Your task to perform on an android device: Open calendar and show me the second week of next month Image 0: 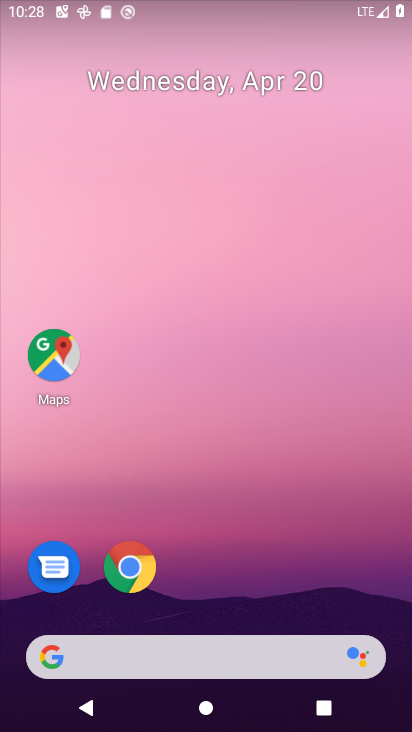
Step 0: drag from (346, 587) to (347, 185)
Your task to perform on an android device: Open calendar and show me the second week of next month Image 1: 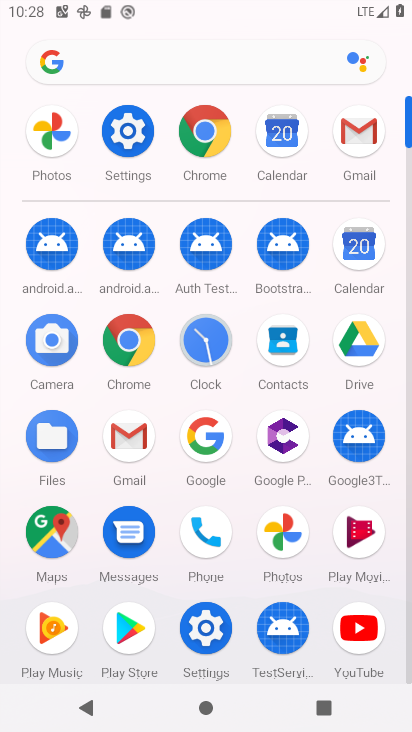
Step 1: click (365, 239)
Your task to perform on an android device: Open calendar and show me the second week of next month Image 2: 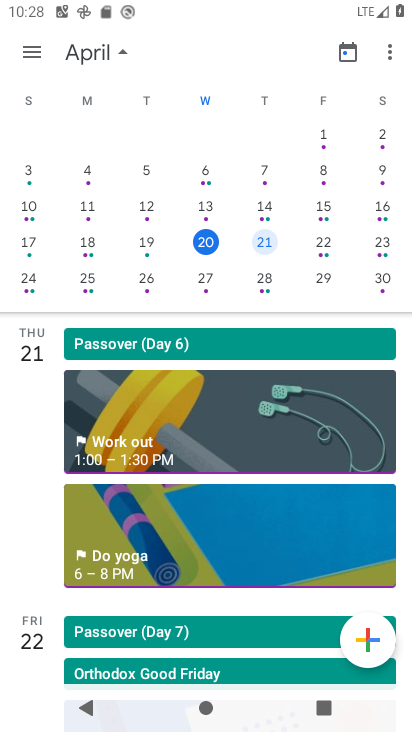
Step 2: drag from (383, 228) to (3, 235)
Your task to perform on an android device: Open calendar and show me the second week of next month Image 3: 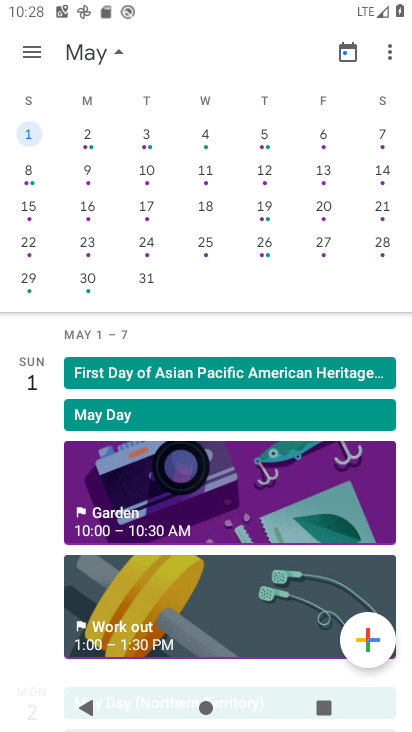
Step 3: click (141, 169)
Your task to perform on an android device: Open calendar and show me the second week of next month Image 4: 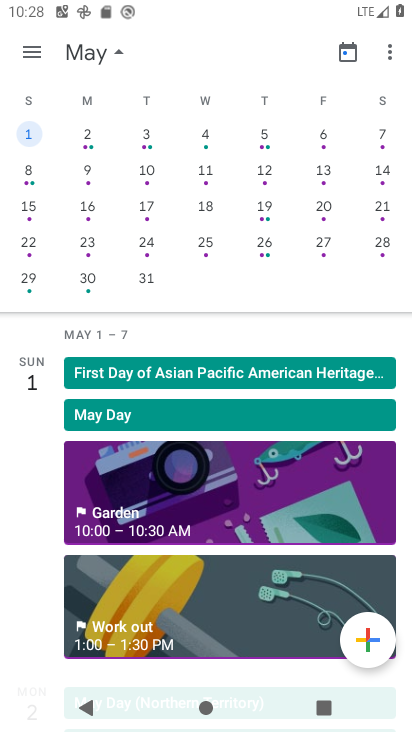
Step 4: click (151, 170)
Your task to perform on an android device: Open calendar and show me the second week of next month Image 5: 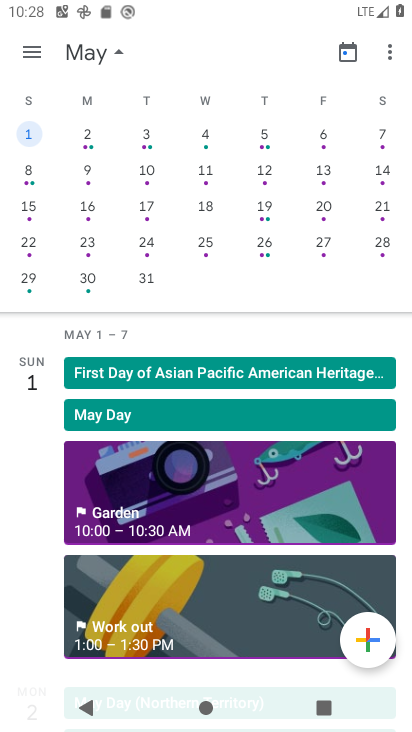
Step 5: click (147, 170)
Your task to perform on an android device: Open calendar and show me the second week of next month Image 6: 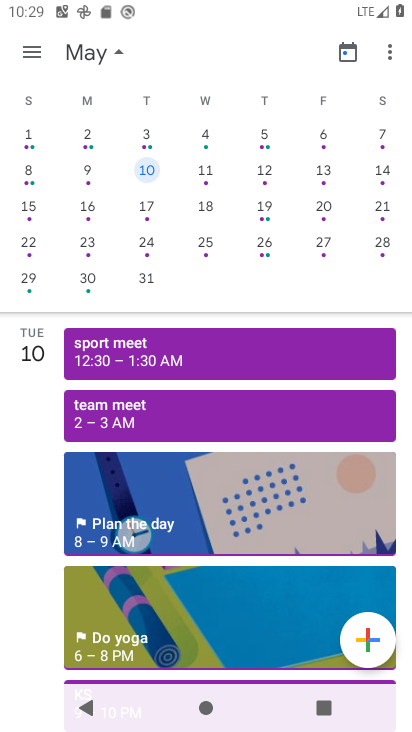
Step 6: task complete